Your task to perform on an android device: Open location settings Image 0: 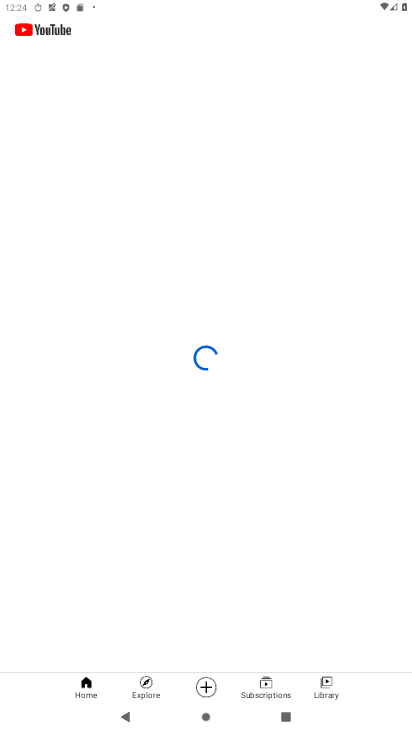
Step 0: press home button
Your task to perform on an android device: Open location settings Image 1: 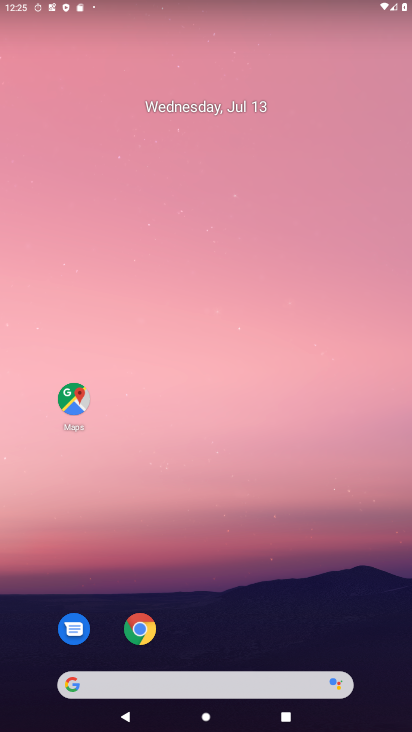
Step 1: drag from (195, 630) to (181, 141)
Your task to perform on an android device: Open location settings Image 2: 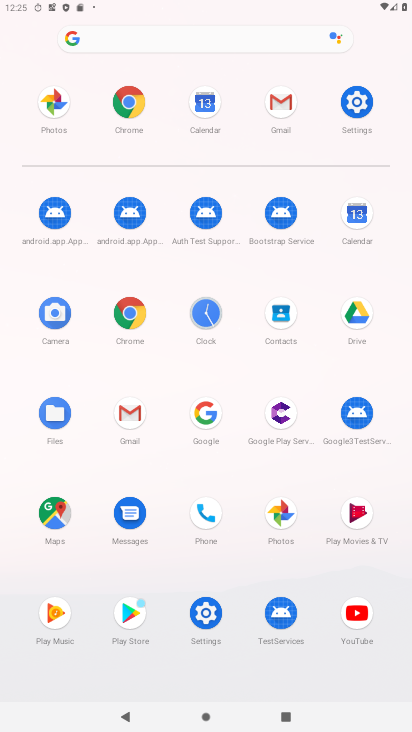
Step 2: click (344, 107)
Your task to perform on an android device: Open location settings Image 3: 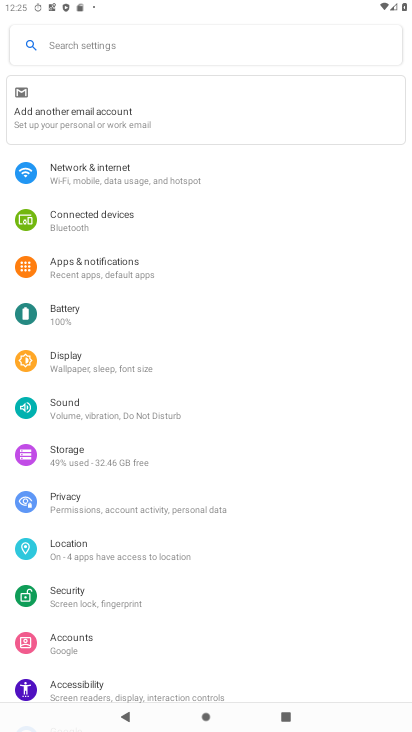
Step 3: click (104, 542)
Your task to perform on an android device: Open location settings Image 4: 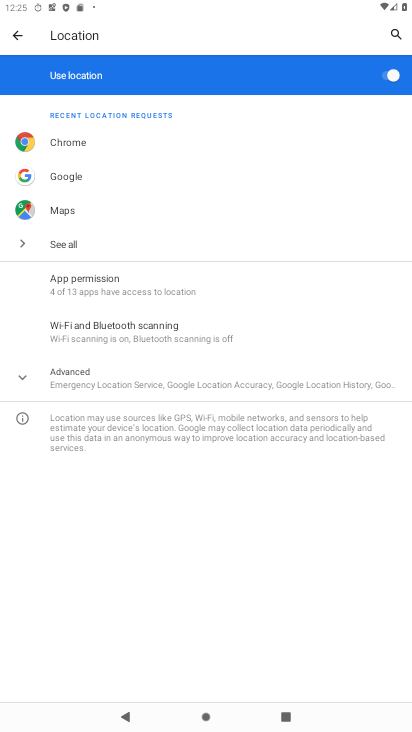
Step 4: task complete